Your task to perform on an android device: check android version Image 0: 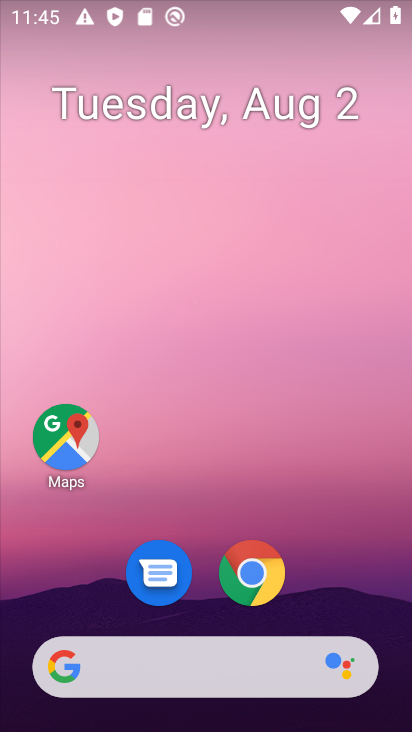
Step 0: drag from (227, 684) to (192, 68)
Your task to perform on an android device: check android version Image 1: 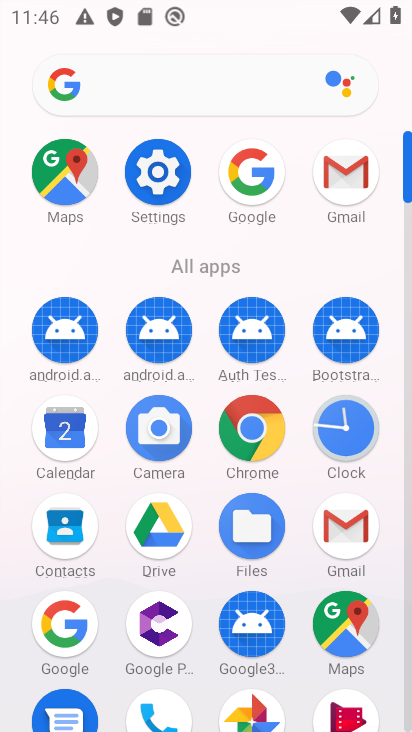
Step 1: click (157, 164)
Your task to perform on an android device: check android version Image 2: 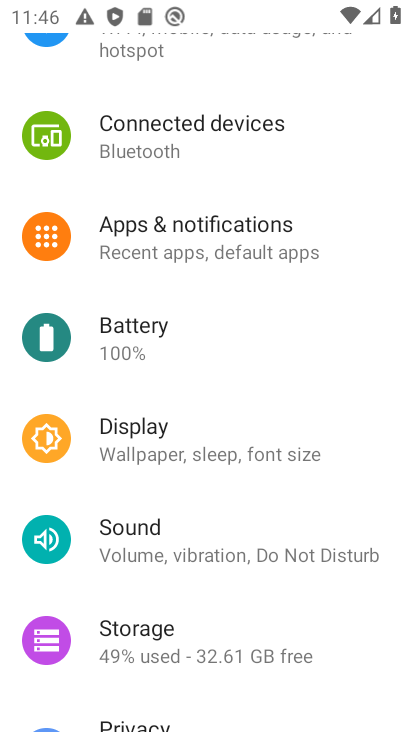
Step 2: drag from (216, 556) to (289, 99)
Your task to perform on an android device: check android version Image 3: 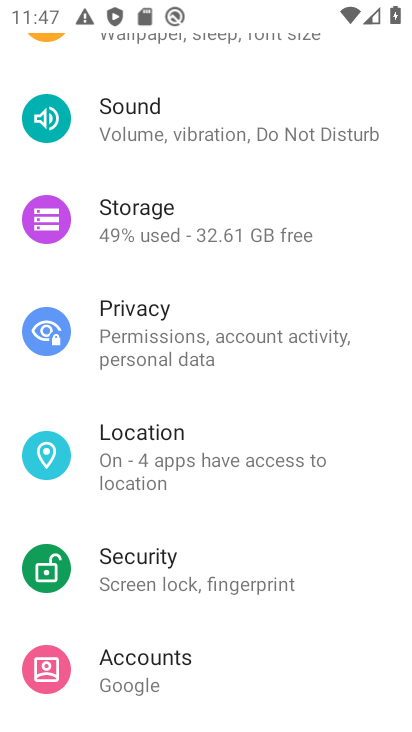
Step 3: drag from (173, 624) to (172, 111)
Your task to perform on an android device: check android version Image 4: 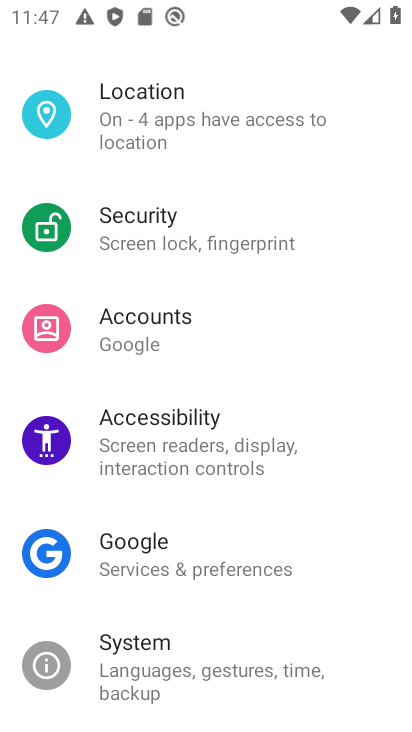
Step 4: drag from (244, 310) to (393, 5)
Your task to perform on an android device: check android version Image 5: 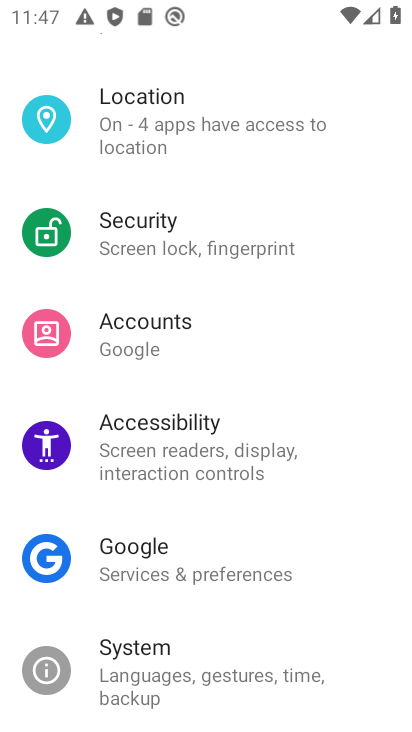
Step 5: drag from (302, 620) to (300, 58)
Your task to perform on an android device: check android version Image 6: 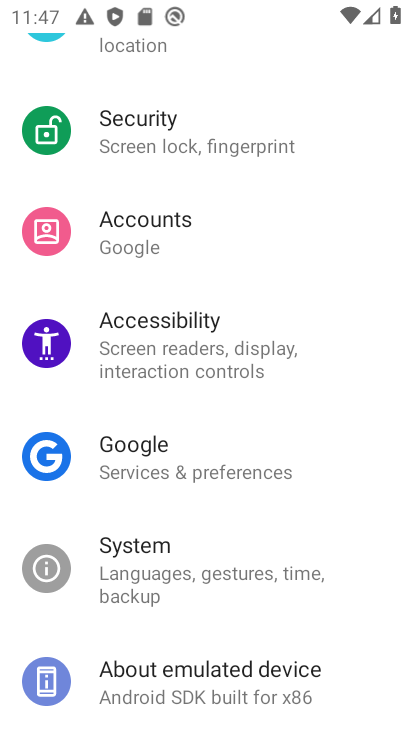
Step 6: click (171, 684)
Your task to perform on an android device: check android version Image 7: 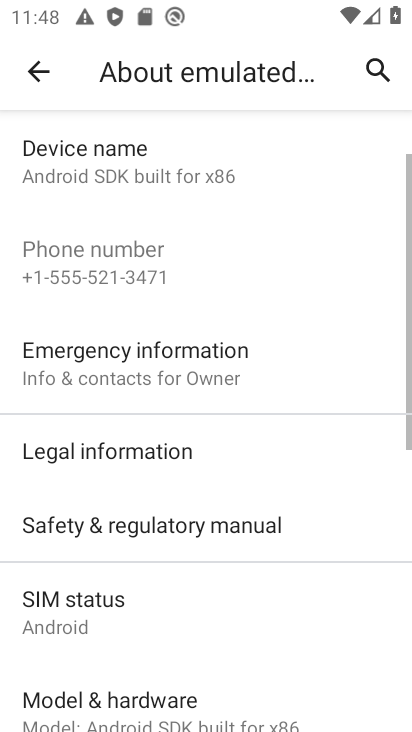
Step 7: drag from (129, 545) to (174, 64)
Your task to perform on an android device: check android version Image 8: 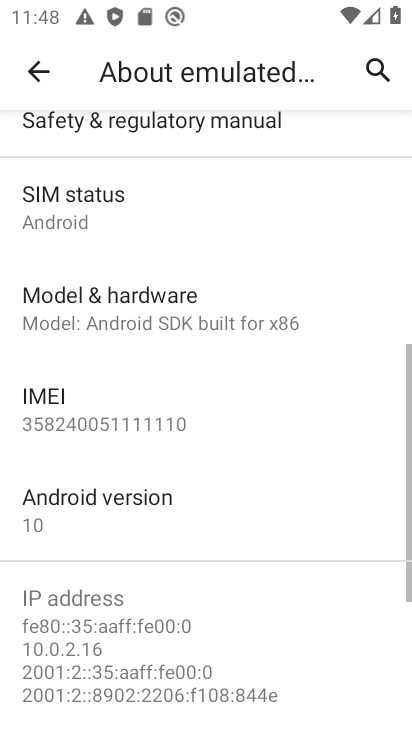
Step 8: click (150, 527)
Your task to perform on an android device: check android version Image 9: 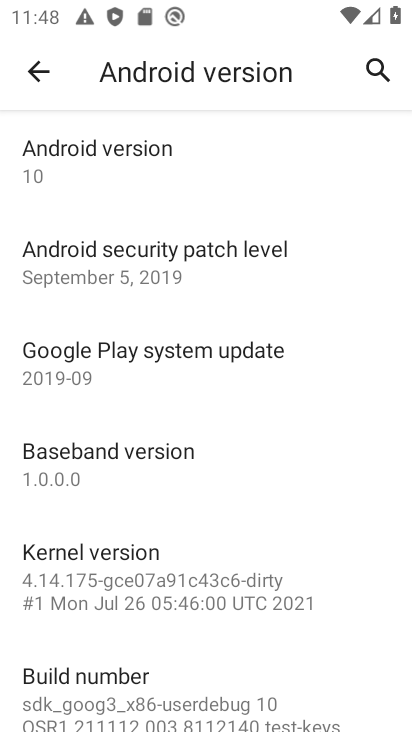
Step 9: task complete